Your task to perform on an android device: Go to display settings Image 0: 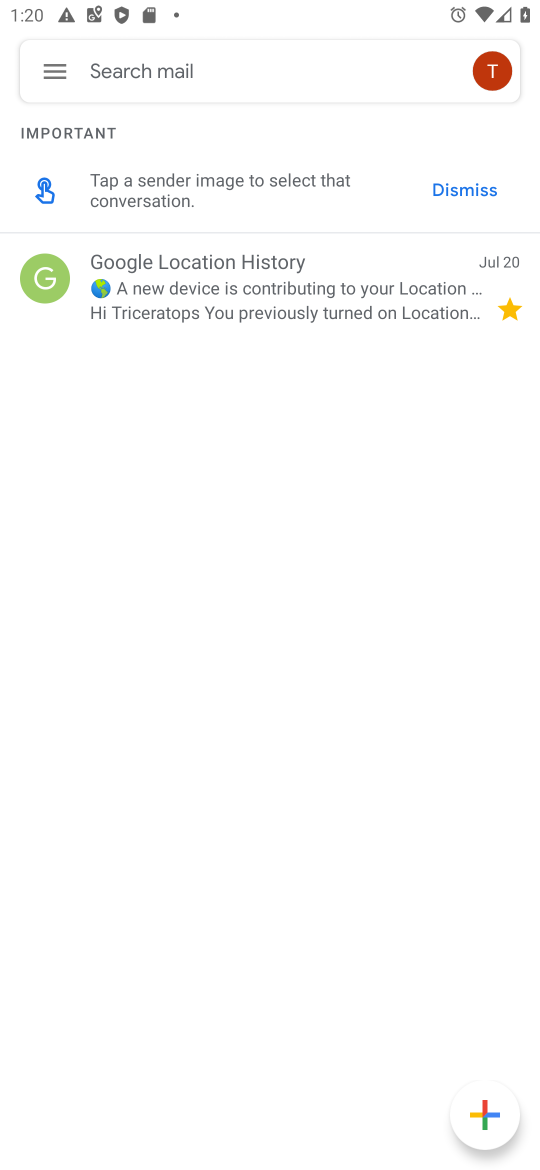
Step 0: press home button
Your task to perform on an android device: Go to display settings Image 1: 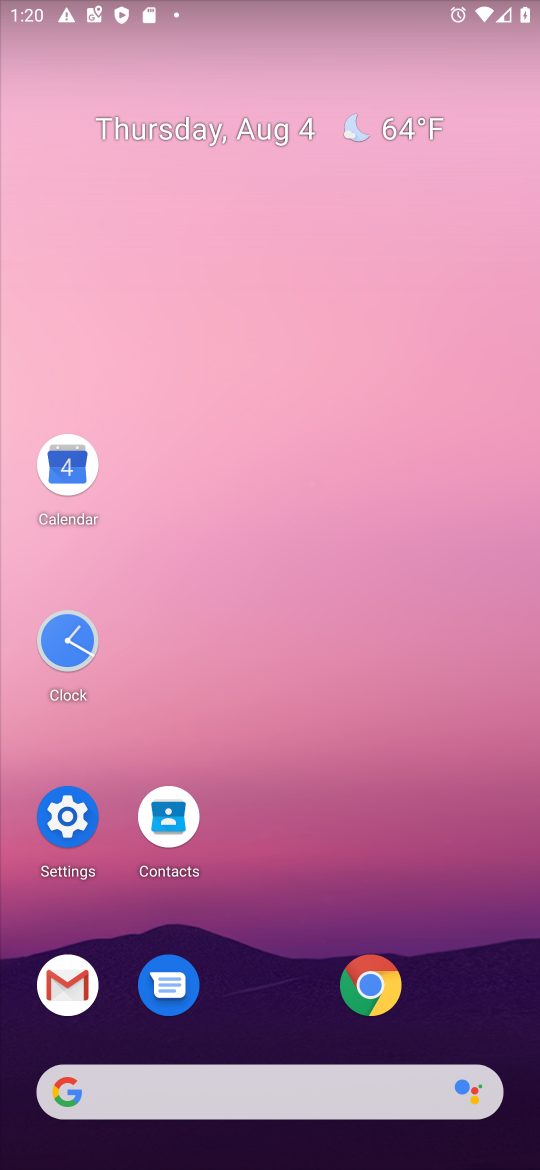
Step 1: click (61, 816)
Your task to perform on an android device: Go to display settings Image 2: 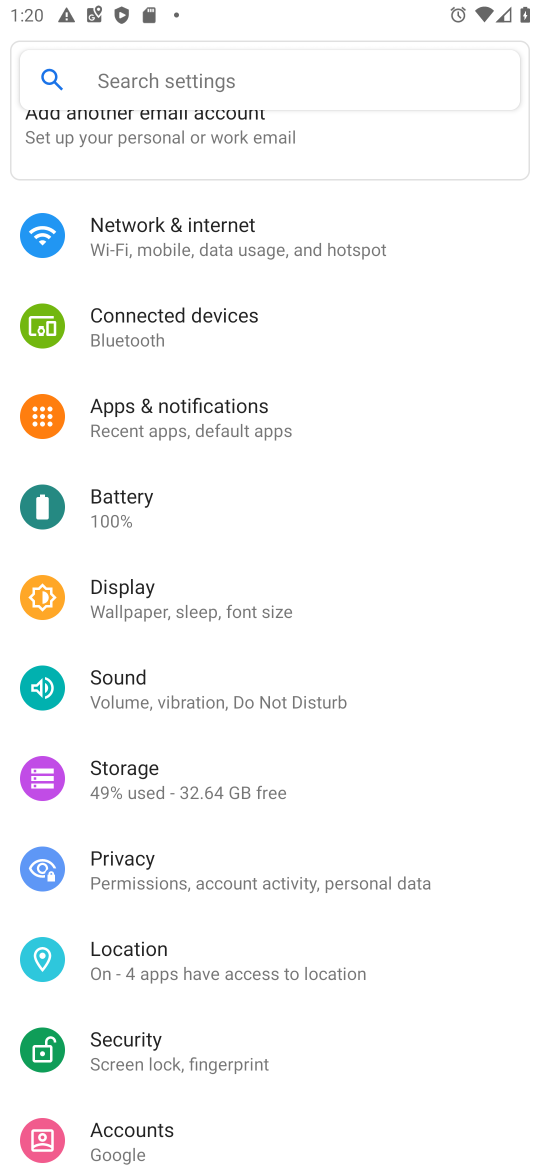
Step 2: click (120, 586)
Your task to perform on an android device: Go to display settings Image 3: 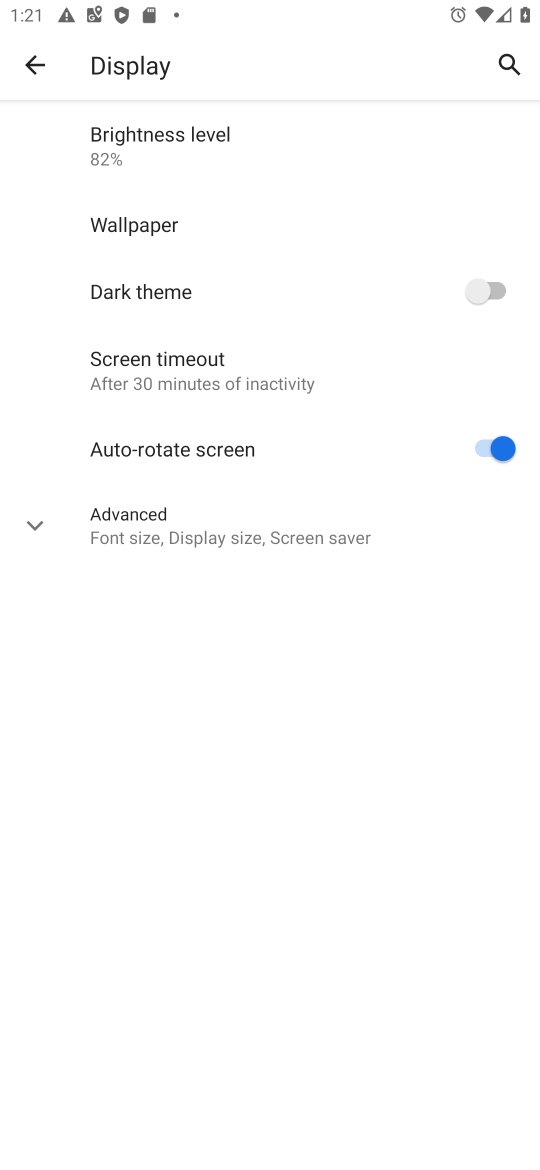
Step 3: task complete